Your task to perform on an android device: Is it going to rain today? Image 0: 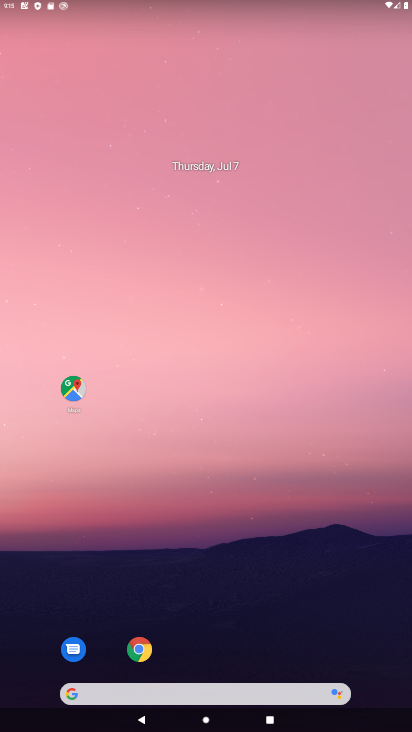
Step 0: click (257, 699)
Your task to perform on an android device: Is it going to rain today? Image 1: 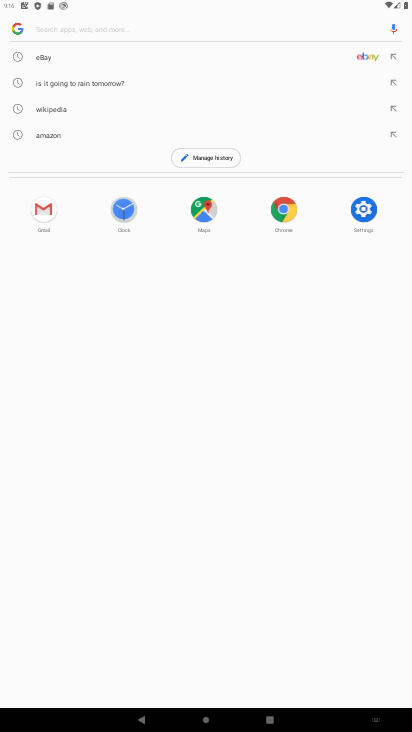
Step 1: type "Is it going to rain today?"
Your task to perform on an android device: Is it going to rain today? Image 2: 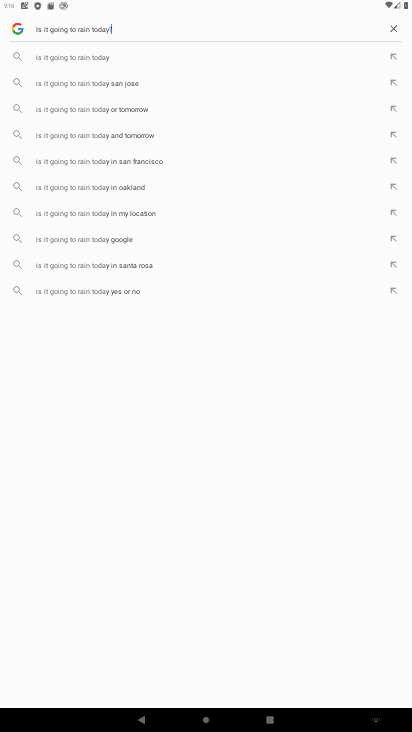
Step 2: press enter
Your task to perform on an android device: Is it going to rain today? Image 3: 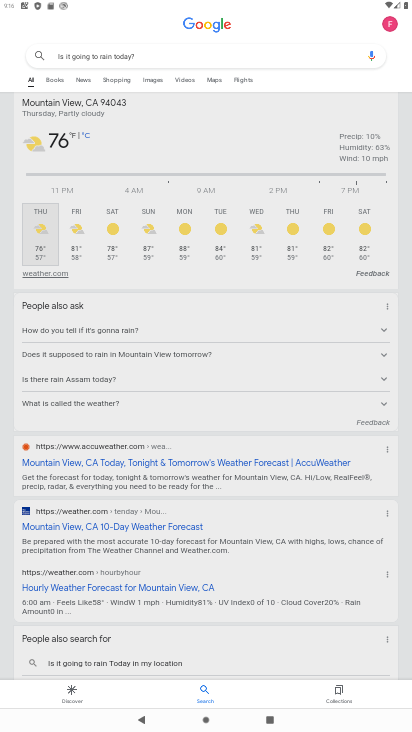
Step 3: task complete